Your task to perform on an android device: check the backup settings in the google photos Image 0: 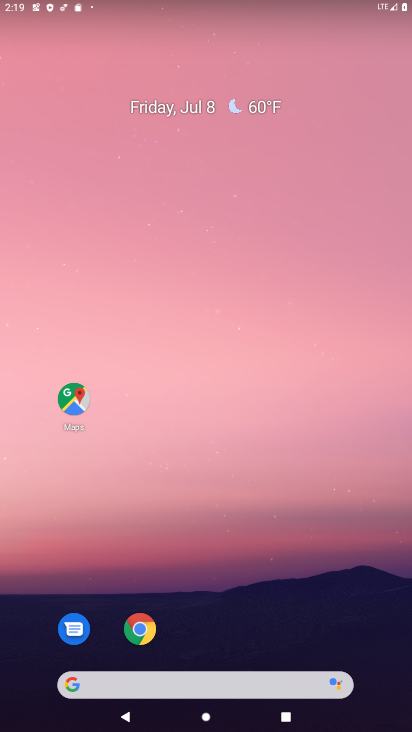
Step 0: drag from (200, 646) to (201, 242)
Your task to perform on an android device: check the backup settings in the google photos Image 1: 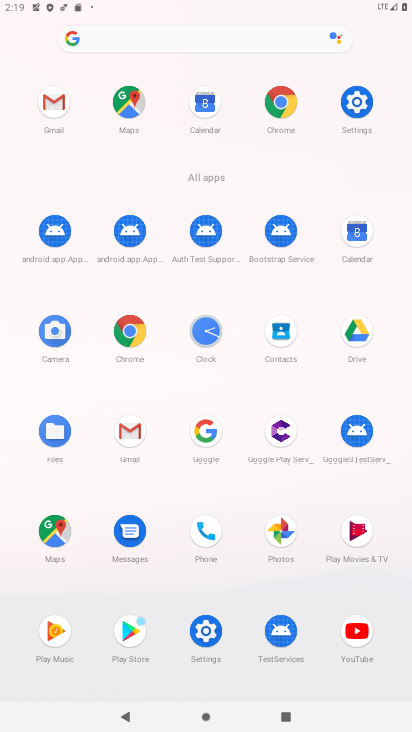
Step 1: click (272, 535)
Your task to perform on an android device: check the backup settings in the google photos Image 2: 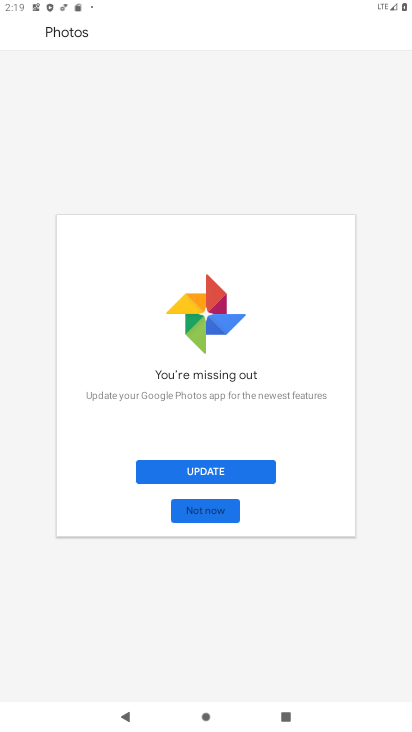
Step 2: click (213, 511)
Your task to perform on an android device: check the backup settings in the google photos Image 3: 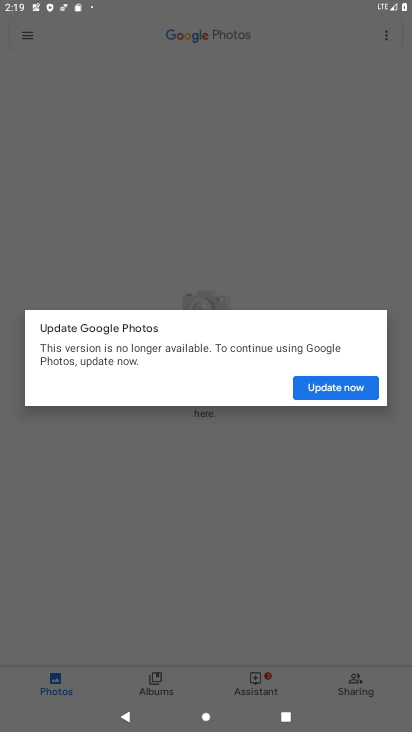
Step 3: click (305, 388)
Your task to perform on an android device: check the backup settings in the google photos Image 4: 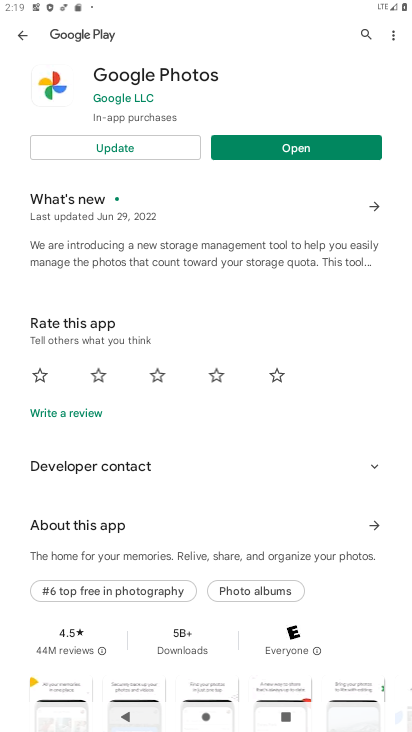
Step 4: click (267, 153)
Your task to perform on an android device: check the backup settings in the google photos Image 5: 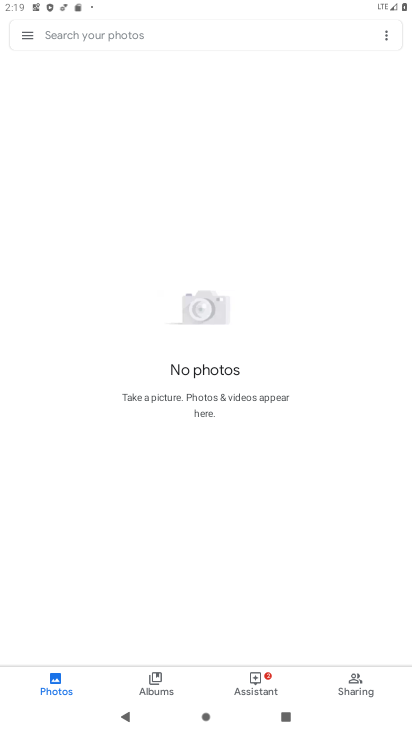
Step 5: click (28, 38)
Your task to perform on an android device: check the backup settings in the google photos Image 6: 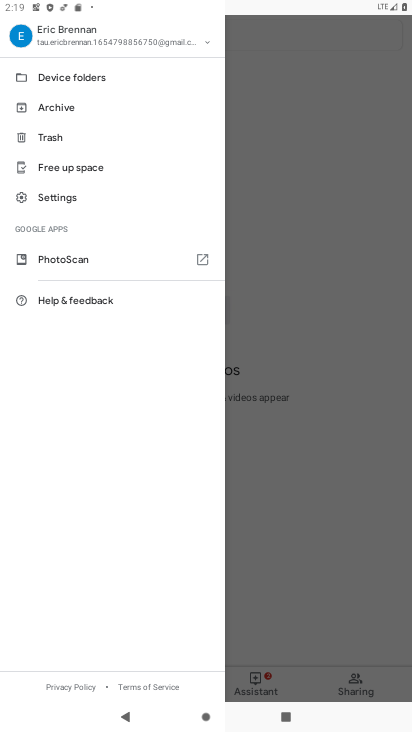
Step 6: click (67, 200)
Your task to perform on an android device: check the backup settings in the google photos Image 7: 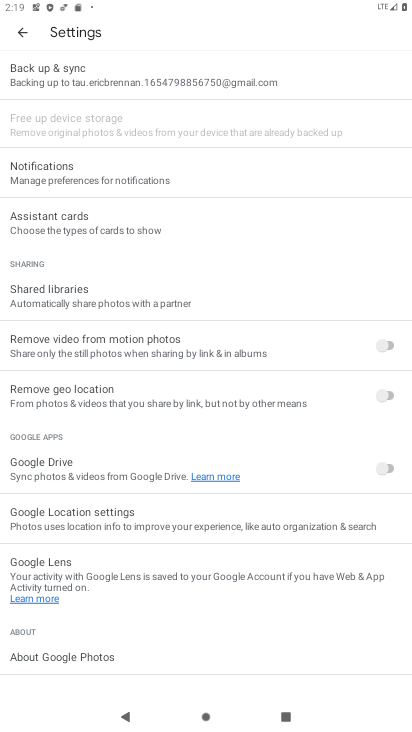
Step 7: click (154, 74)
Your task to perform on an android device: check the backup settings in the google photos Image 8: 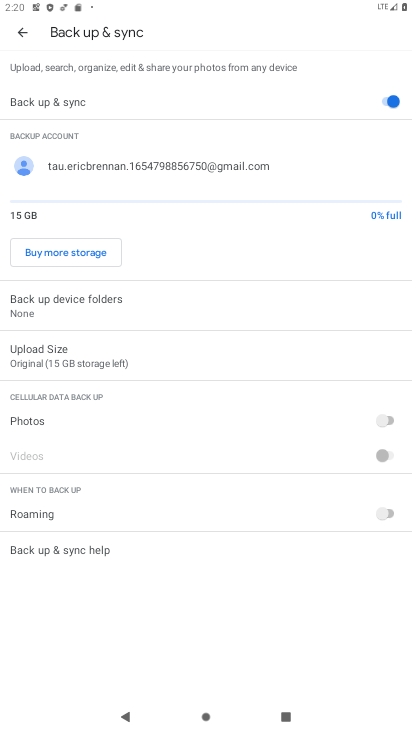
Step 8: task complete